Your task to perform on an android device: When is my next meeting? Image 0: 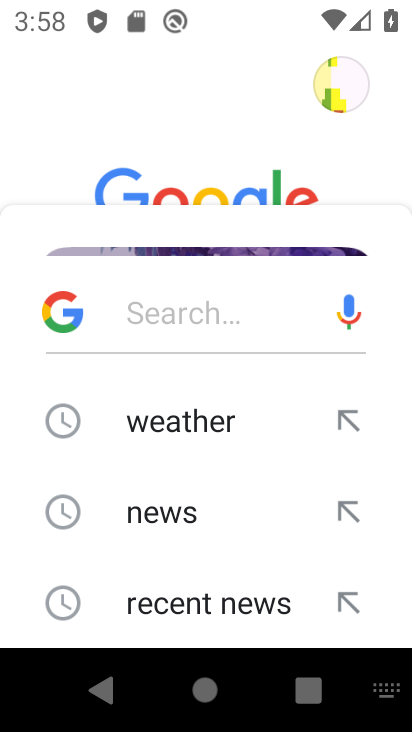
Step 0: press back button
Your task to perform on an android device: When is my next meeting? Image 1: 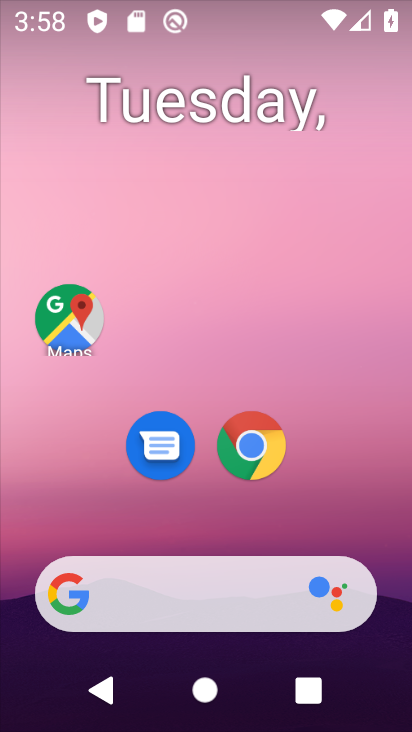
Step 1: drag from (343, 518) to (362, 160)
Your task to perform on an android device: When is my next meeting? Image 2: 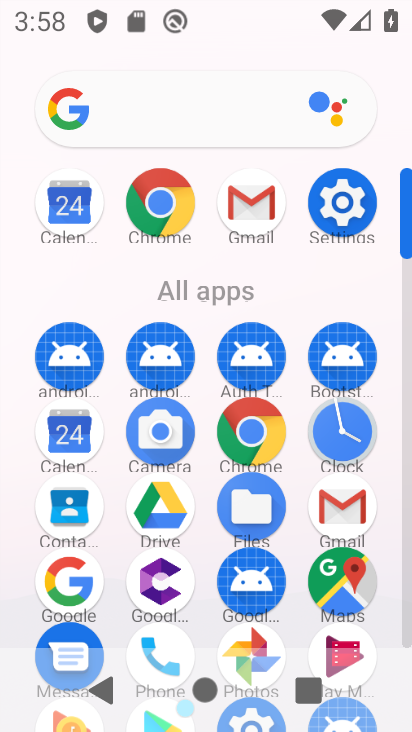
Step 2: click (63, 440)
Your task to perform on an android device: When is my next meeting? Image 3: 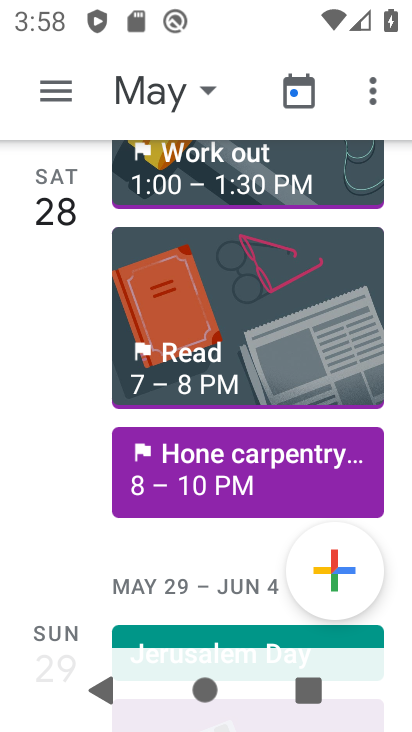
Step 3: task complete